Your task to perform on an android device: create a new album in the google photos Image 0: 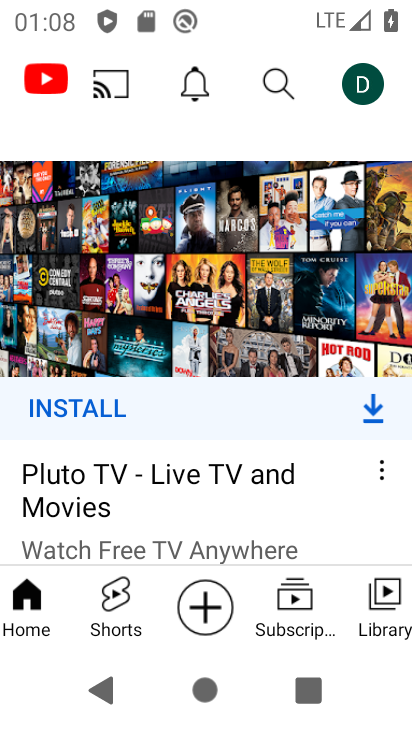
Step 0: press home button
Your task to perform on an android device: create a new album in the google photos Image 1: 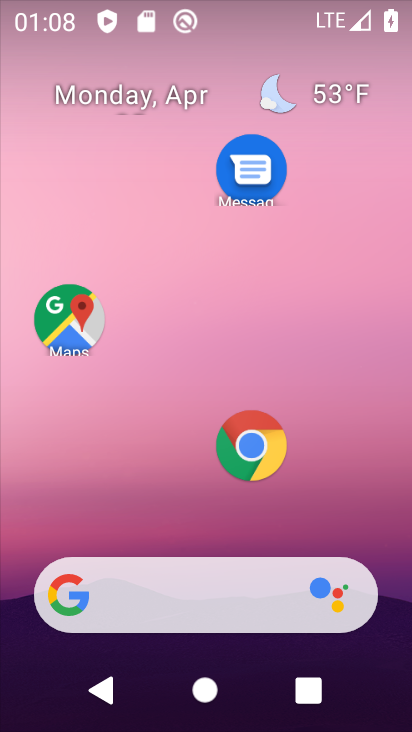
Step 1: drag from (153, 501) to (309, 7)
Your task to perform on an android device: create a new album in the google photos Image 2: 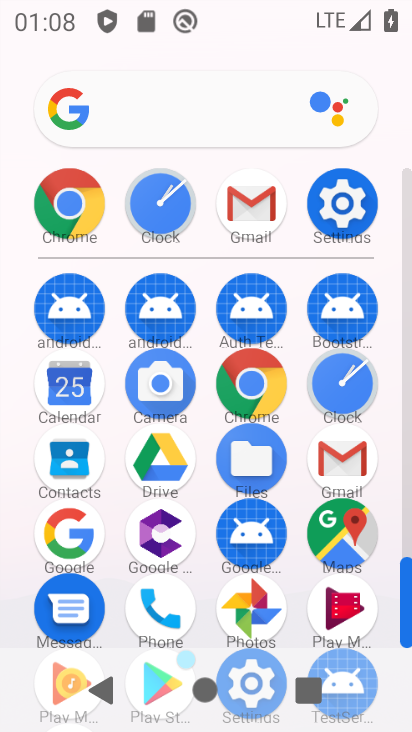
Step 2: click (254, 614)
Your task to perform on an android device: create a new album in the google photos Image 3: 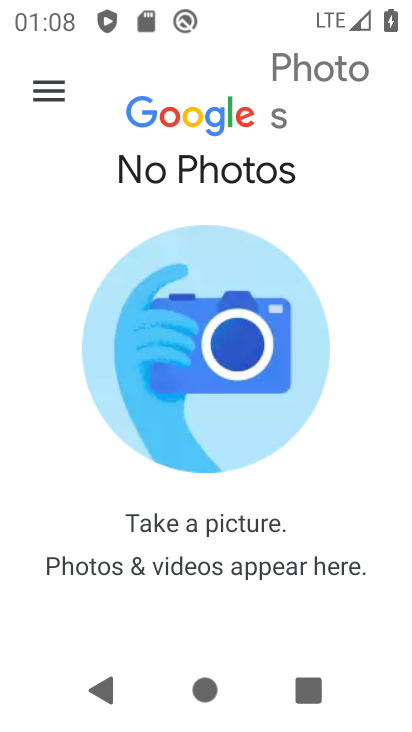
Step 3: click (64, 96)
Your task to perform on an android device: create a new album in the google photos Image 4: 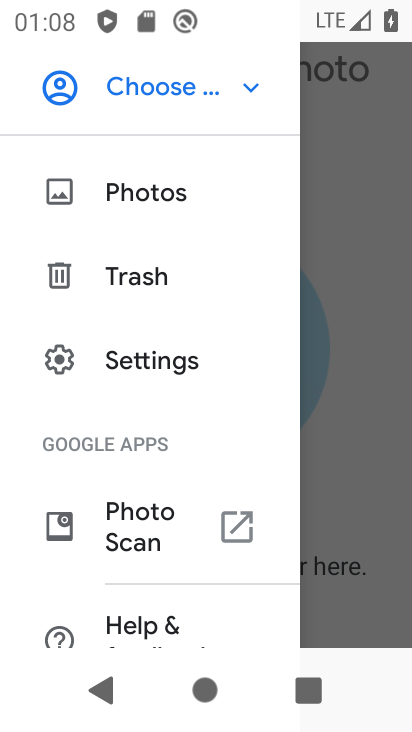
Step 4: click (179, 204)
Your task to perform on an android device: create a new album in the google photos Image 5: 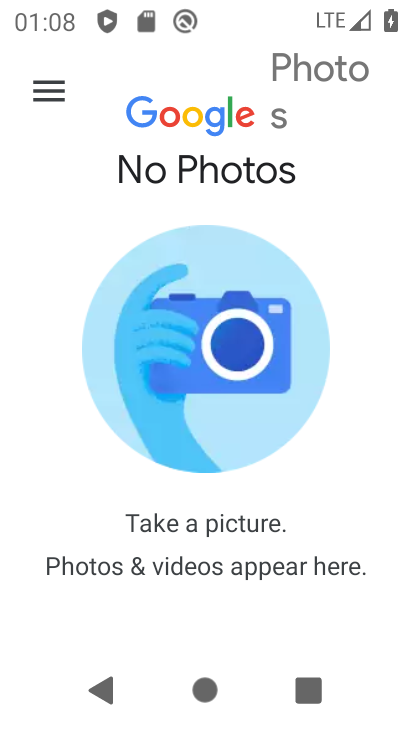
Step 5: task complete